Your task to perform on an android device: What's on my calendar today? Image 0: 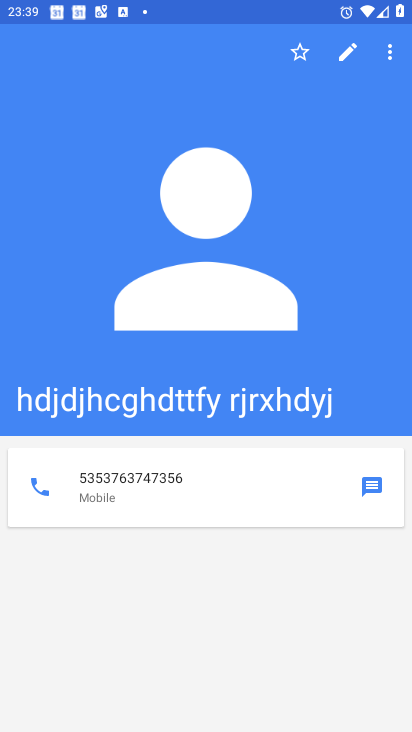
Step 0: press home button
Your task to perform on an android device: What's on my calendar today? Image 1: 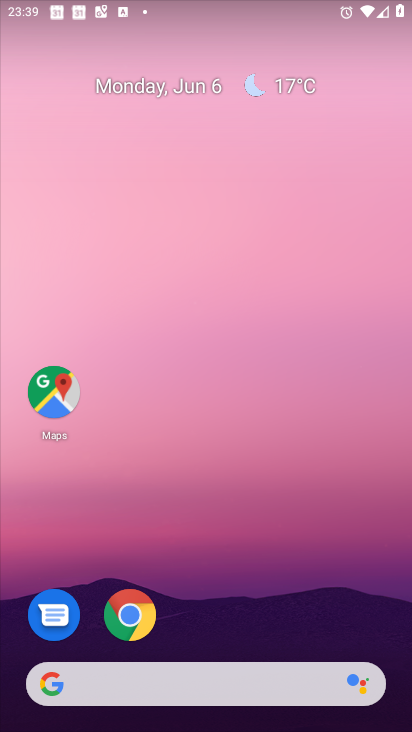
Step 1: drag from (394, 715) to (332, 146)
Your task to perform on an android device: What's on my calendar today? Image 2: 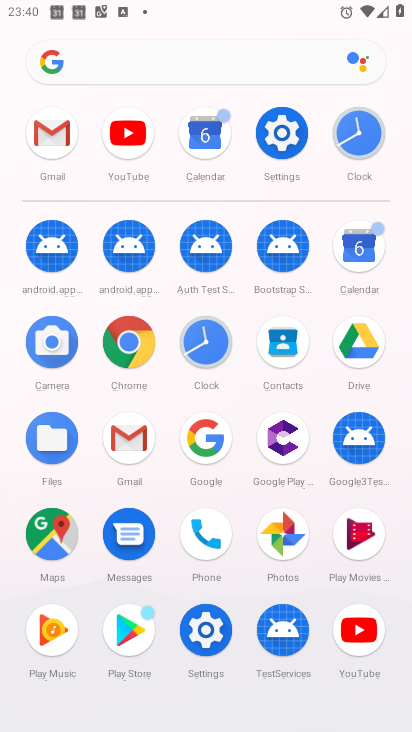
Step 2: click (362, 252)
Your task to perform on an android device: What's on my calendar today? Image 3: 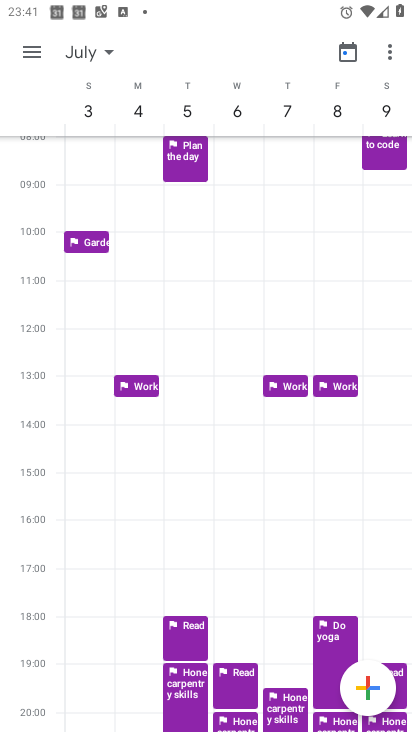
Step 3: click (97, 48)
Your task to perform on an android device: What's on my calendar today? Image 4: 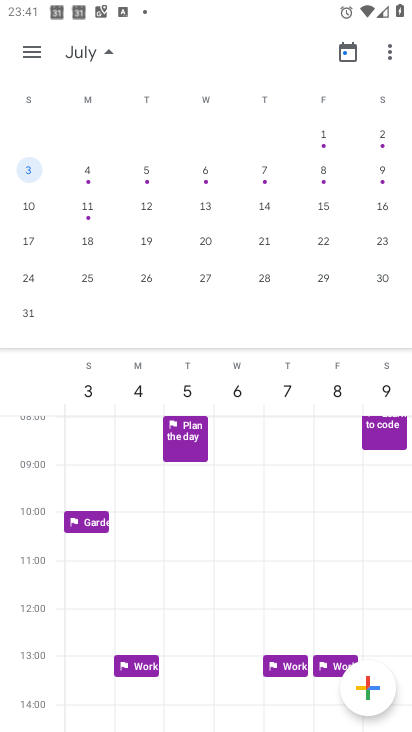
Step 4: drag from (51, 180) to (408, 197)
Your task to perform on an android device: What's on my calendar today? Image 5: 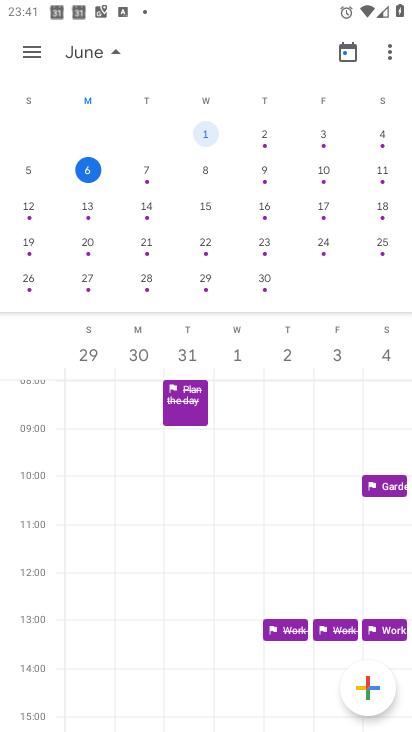
Step 5: click (87, 167)
Your task to perform on an android device: What's on my calendar today? Image 6: 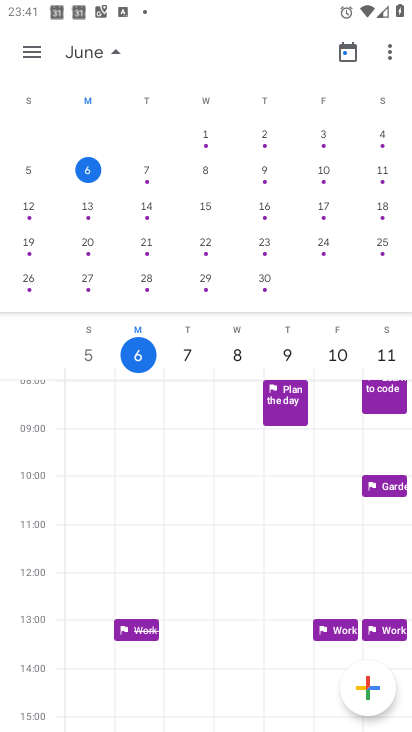
Step 6: click (24, 54)
Your task to perform on an android device: What's on my calendar today? Image 7: 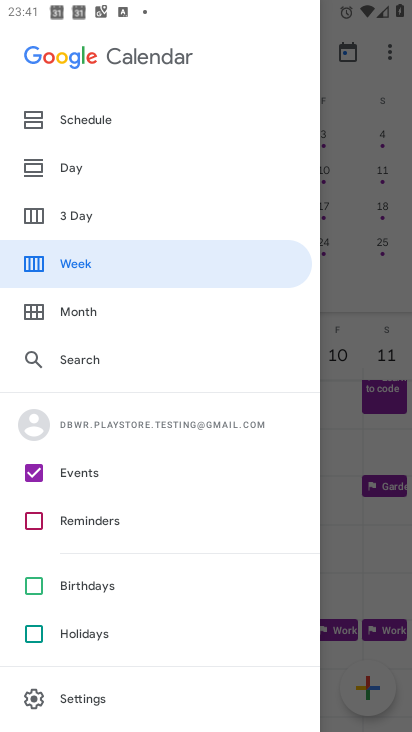
Step 7: click (56, 166)
Your task to perform on an android device: What's on my calendar today? Image 8: 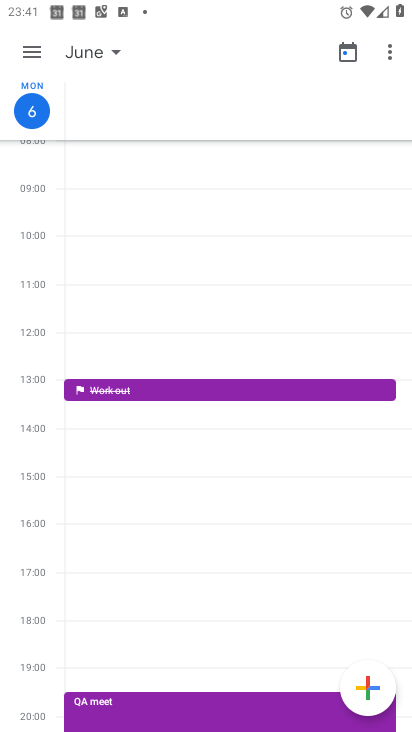
Step 8: click (30, 47)
Your task to perform on an android device: What's on my calendar today? Image 9: 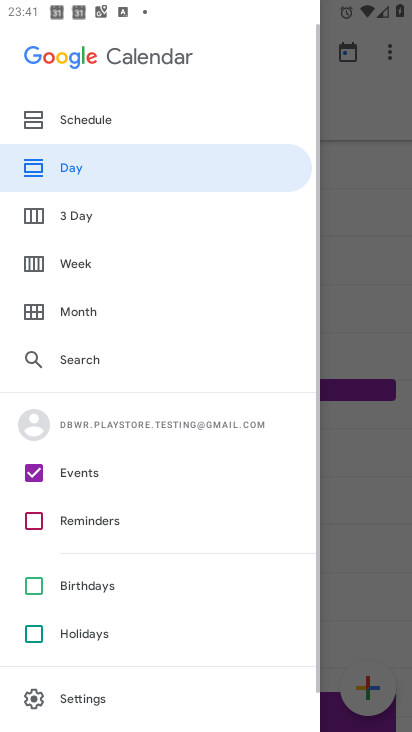
Step 9: click (84, 122)
Your task to perform on an android device: What's on my calendar today? Image 10: 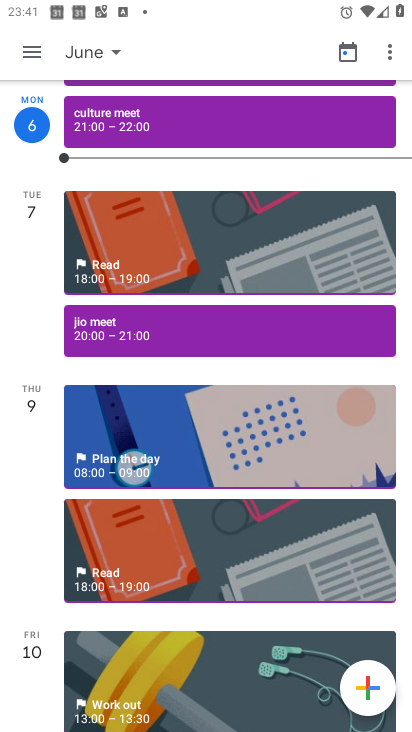
Step 10: task complete